Your task to perform on an android device: Search for logitech g502 on walmart.com, select the first entry, add it to the cart, then select checkout. Image 0: 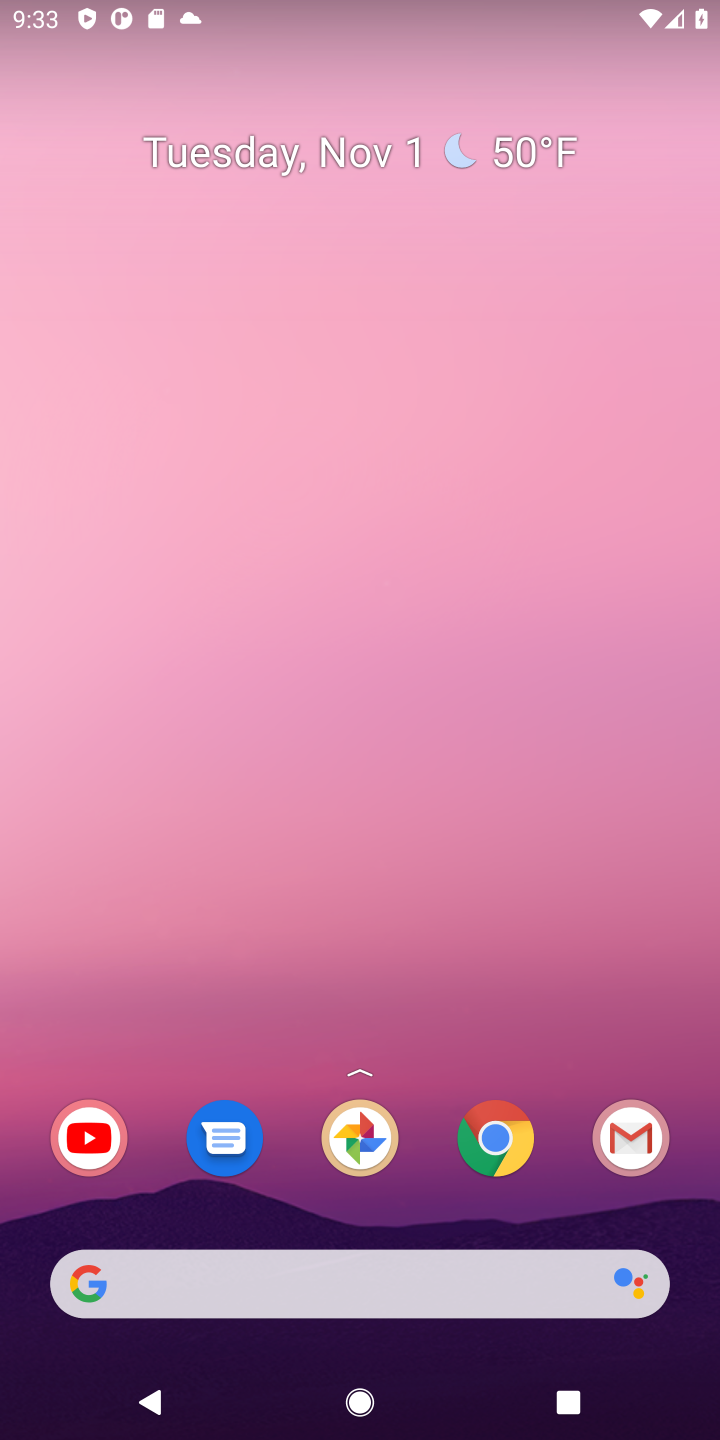
Step 0: click (498, 1138)
Your task to perform on an android device: Search for logitech g502 on walmart.com, select the first entry, add it to the cart, then select checkout. Image 1: 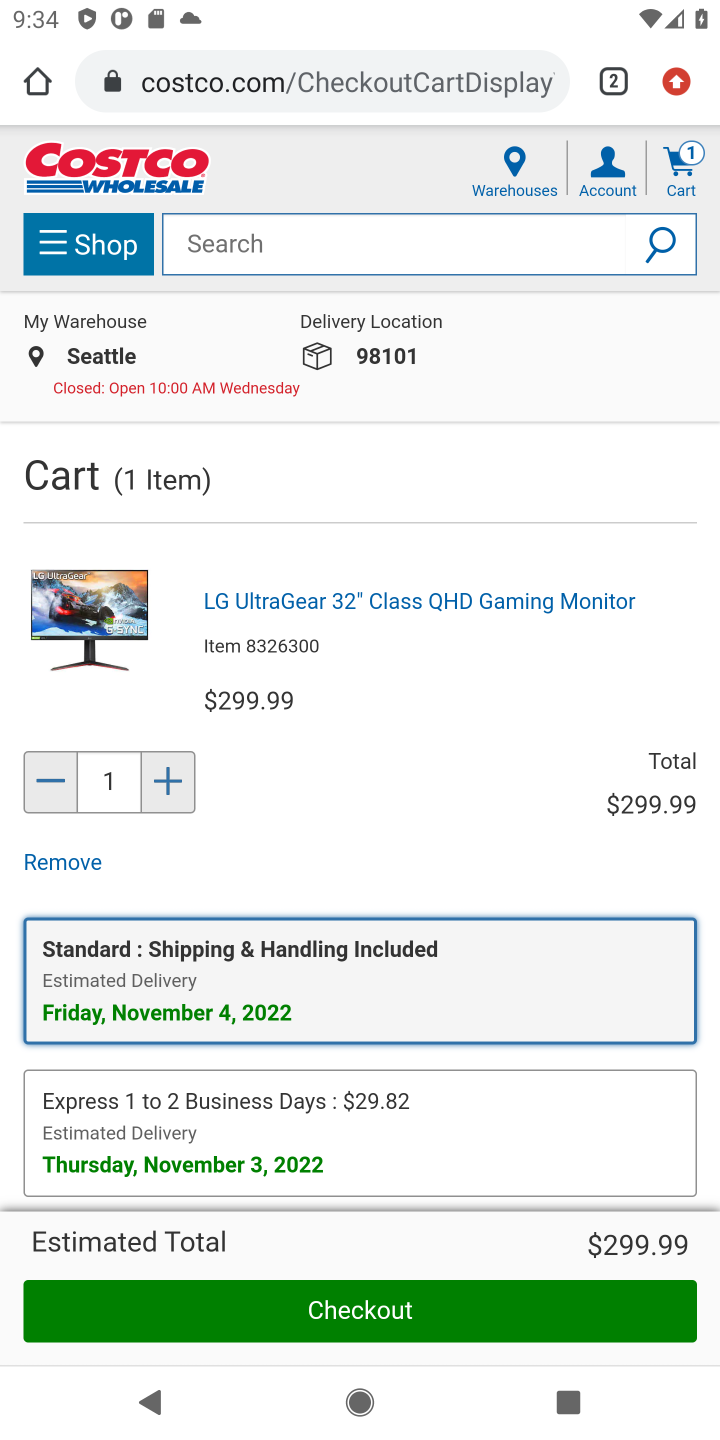
Step 1: click (403, 92)
Your task to perform on an android device: Search for logitech g502 on walmart.com, select the first entry, add it to the cart, then select checkout. Image 2: 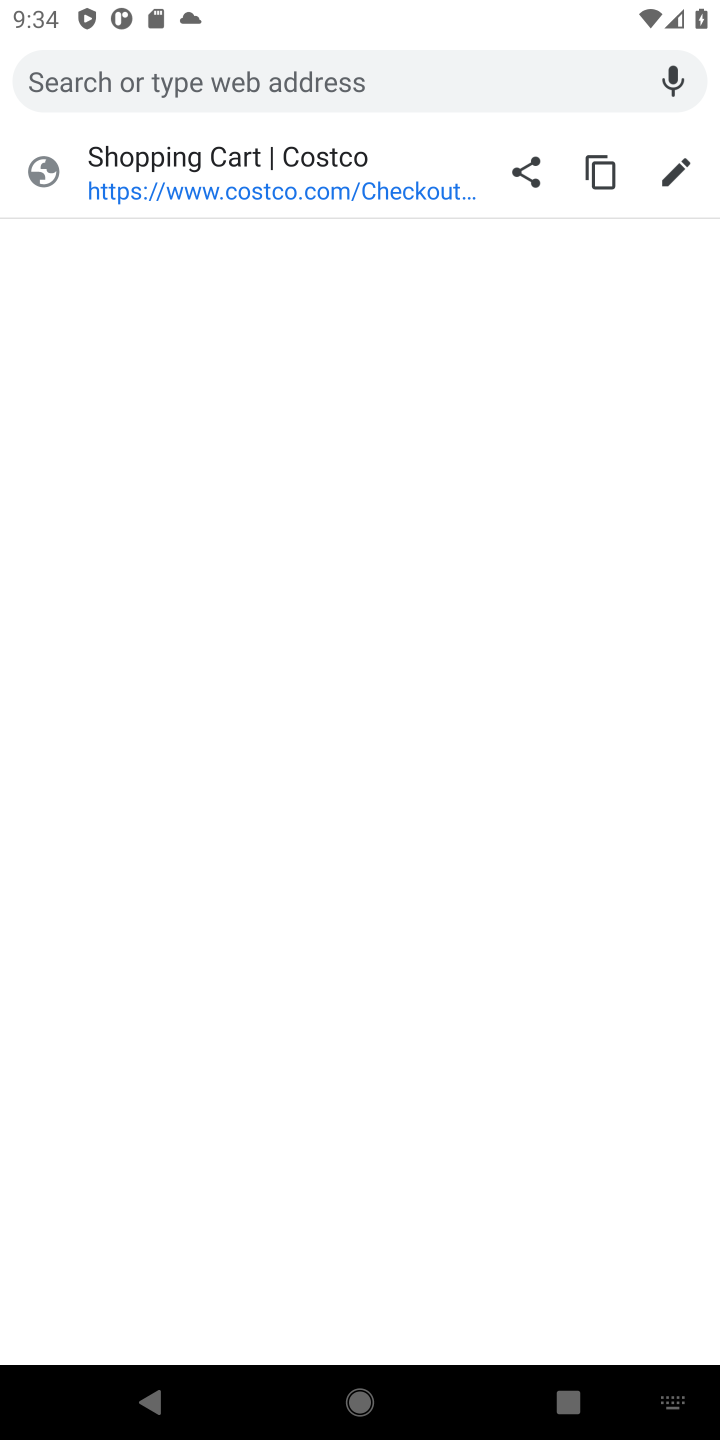
Step 2: type "walmart.com"
Your task to perform on an android device: Search for logitech g502 on walmart.com, select the first entry, add it to the cart, then select checkout. Image 3: 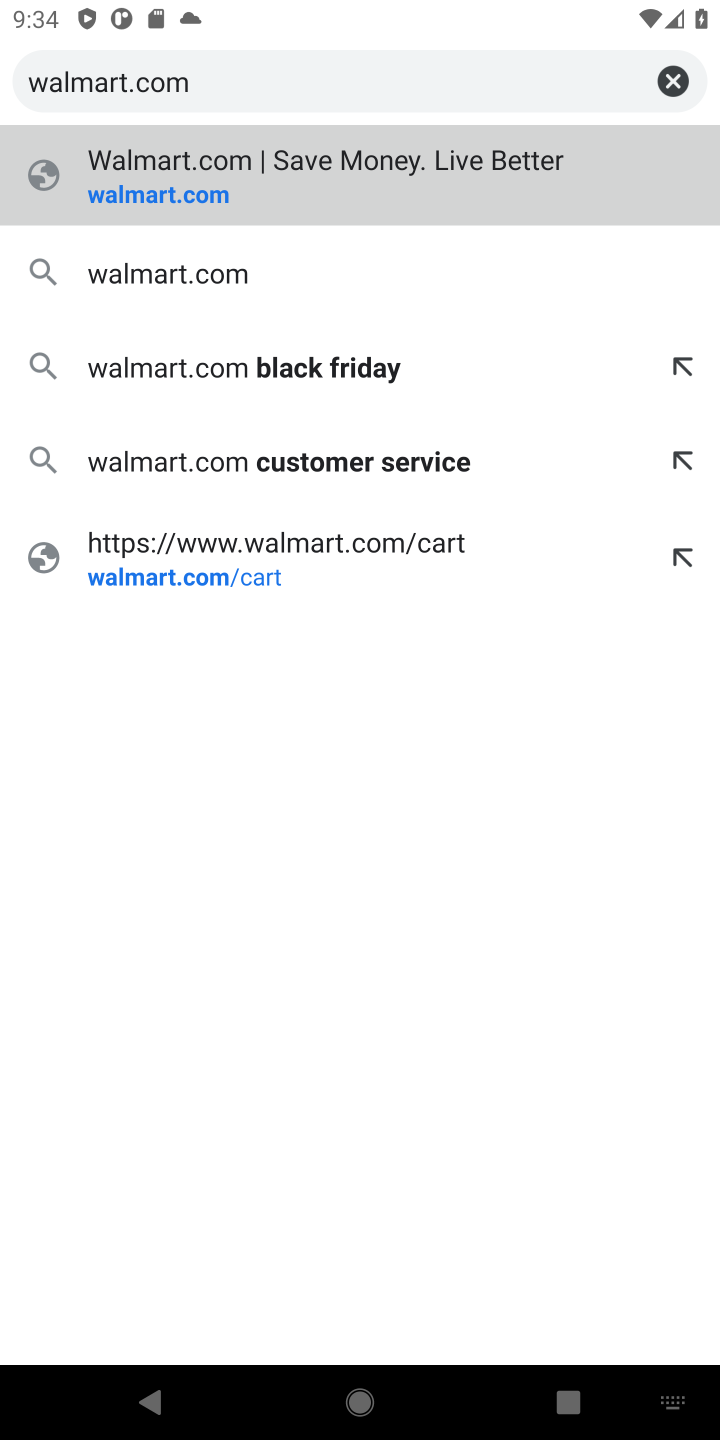
Step 3: click (218, 276)
Your task to perform on an android device: Search for logitech g502 on walmart.com, select the first entry, add it to the cart, then select checkout. Image 4: 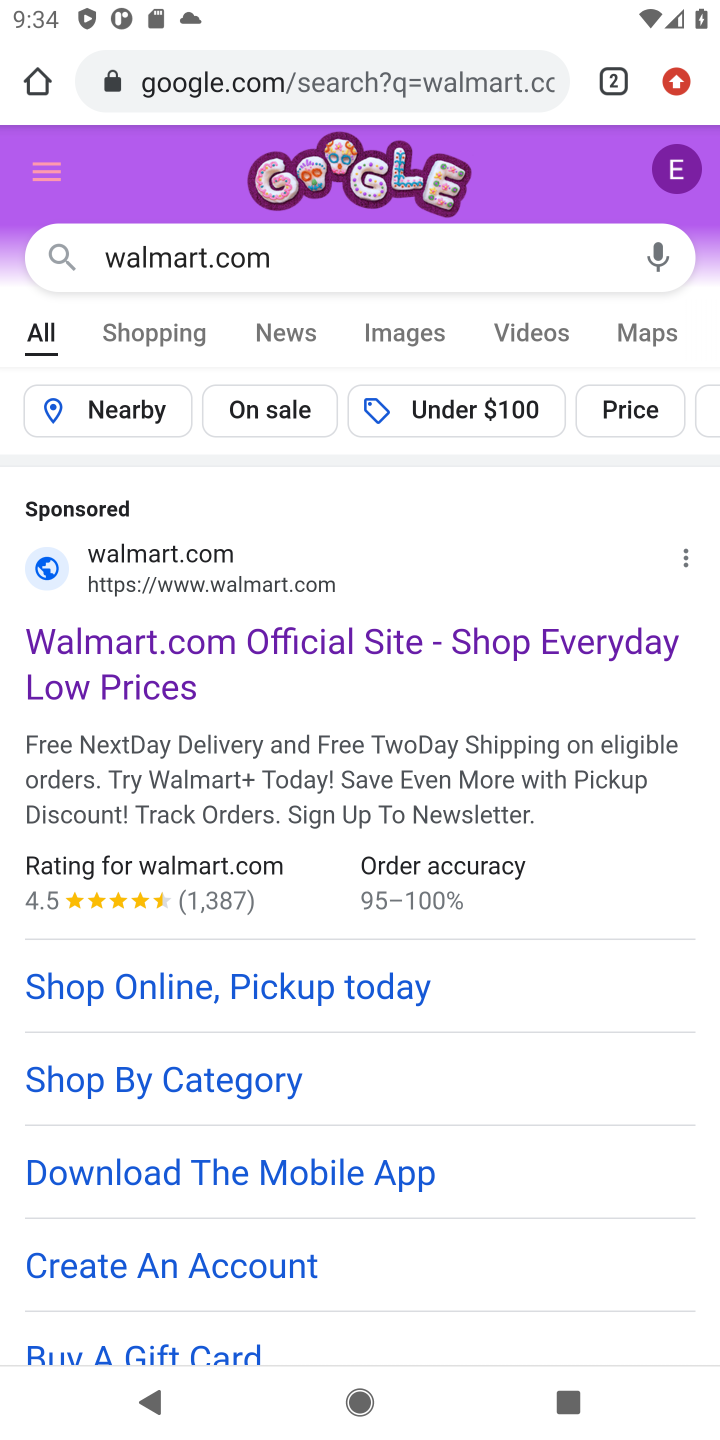
Step 4: drag from (317, 855) to (413, 221)
Your task to perform on an android device: Search for logitech g502 on walmart.com, select the first entry, add it to the cart, then select checkout. Image 5: 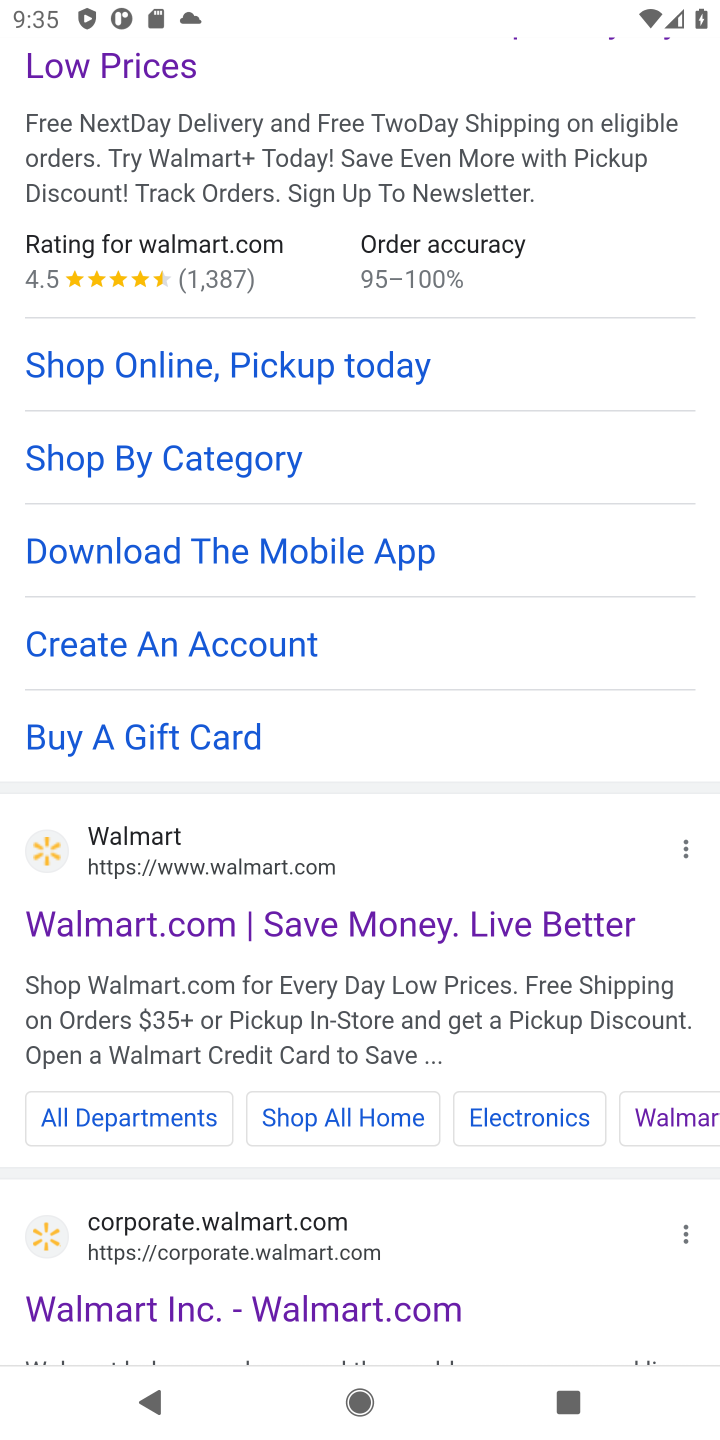
Step 5: click (241, 889)
Your task to perform on an android device: Search for logitech g502 on walmart.com, select the first entry, add it to the cart, then select checkout. Image 6: 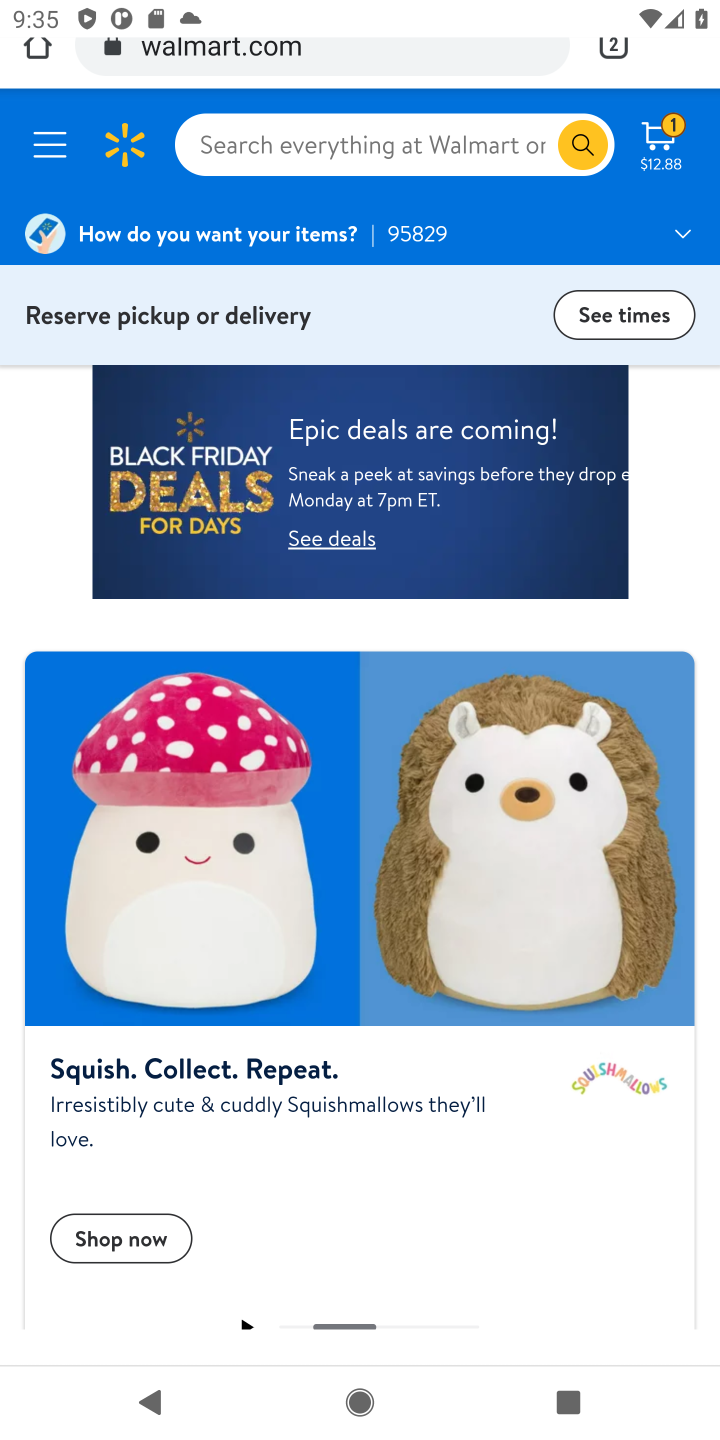
Step 6: click (369, 149)
Your task to perform on an android device: Search for logitech g502 on walmart.com, select the first entry, add it to the cart, then select checkout. Image 7: 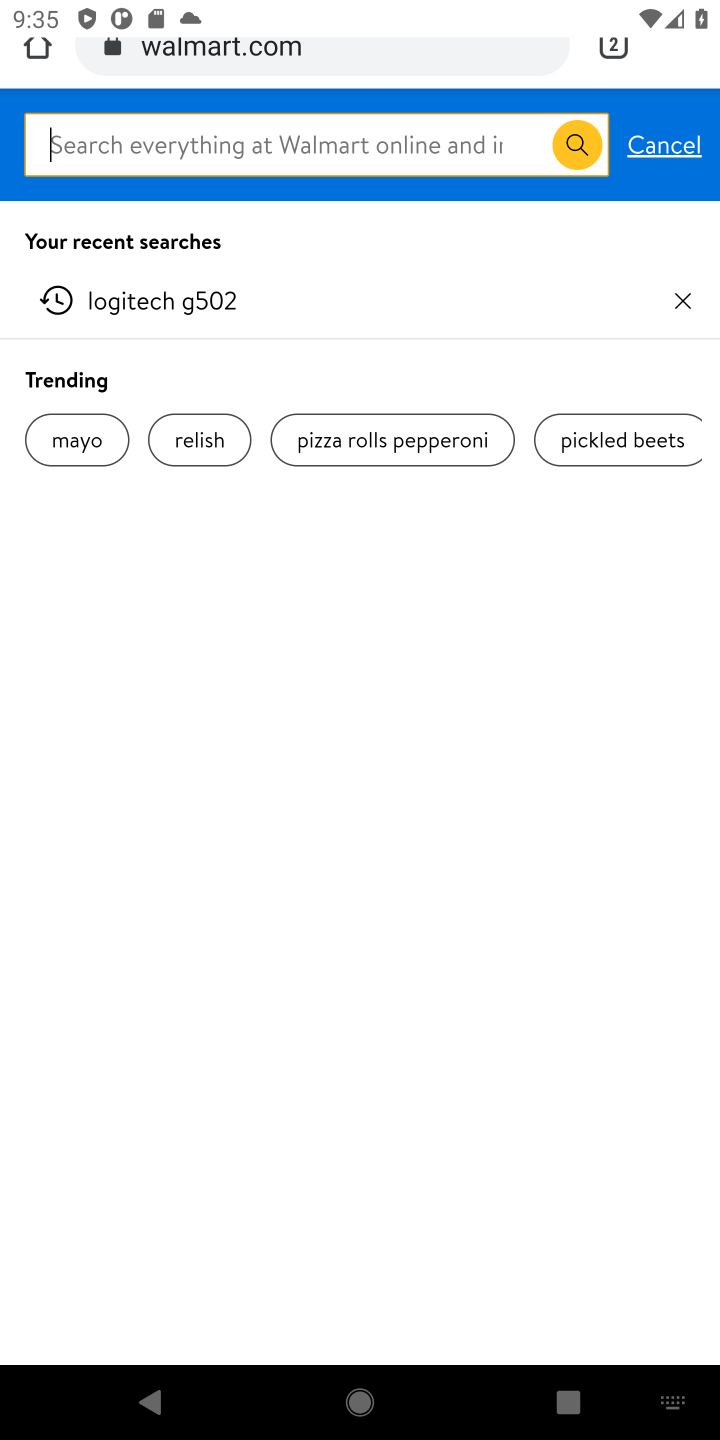
Step 7: type "logitech g502"
Your task to perform on an android device: Search for logitech g502 on walmart.com, select the first entry, add it to the cart, then select checkout. Image 8: 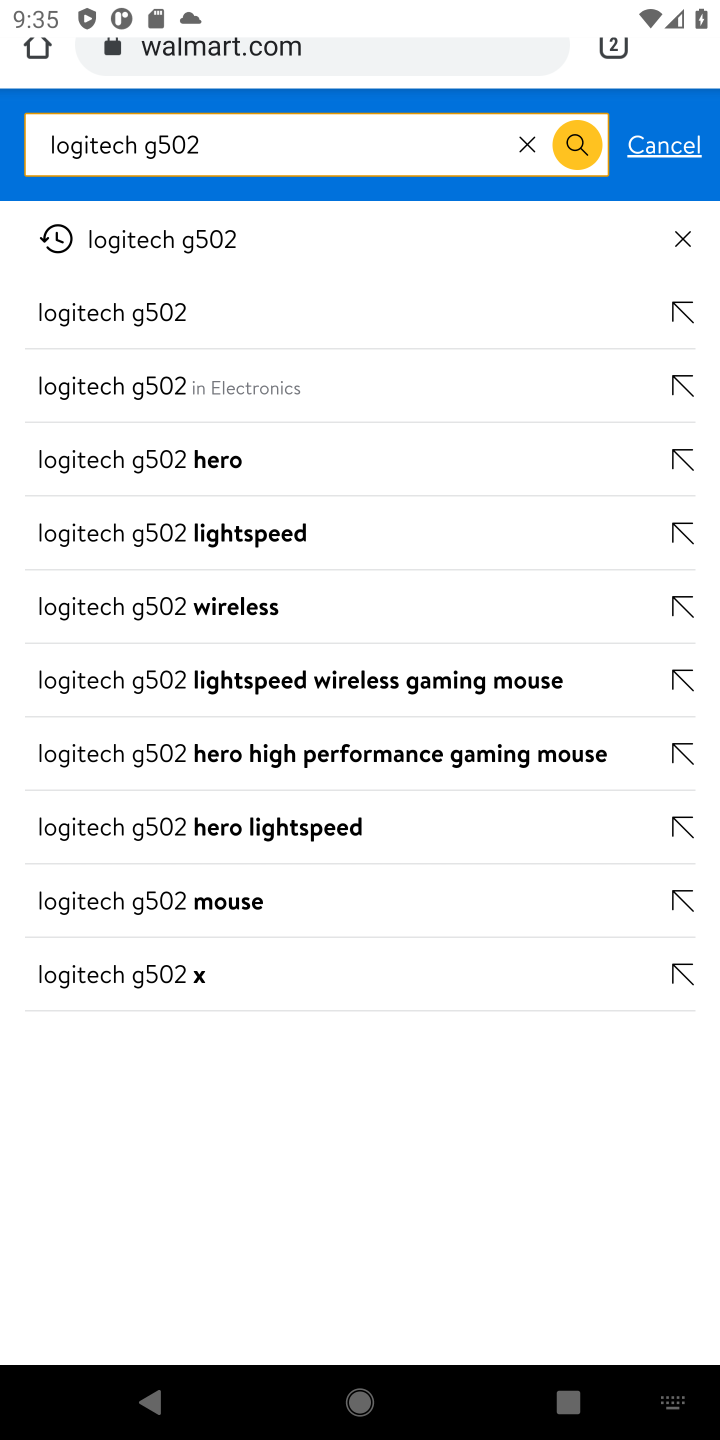
Step 8: click (121, 246)
Your task to perform on an android device: Search for logitech g502 on walmart.com, select the first entry, add it to the cart, then select checkout. Image 9: 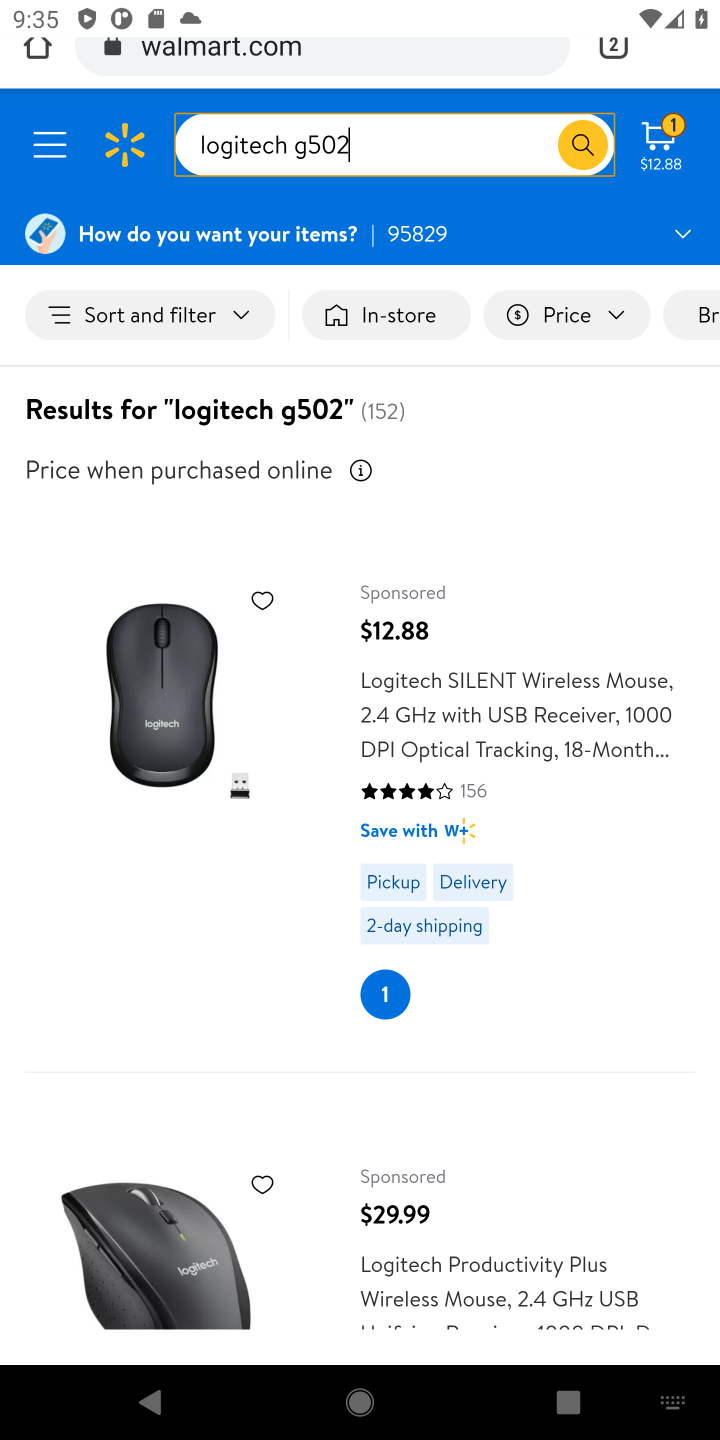
Step 9: click (439, 717)
Your task to perform on an android device: Search for logitech g502 on walmart.com, select the first entry, add it to the cart, then select checkout. Image 10: 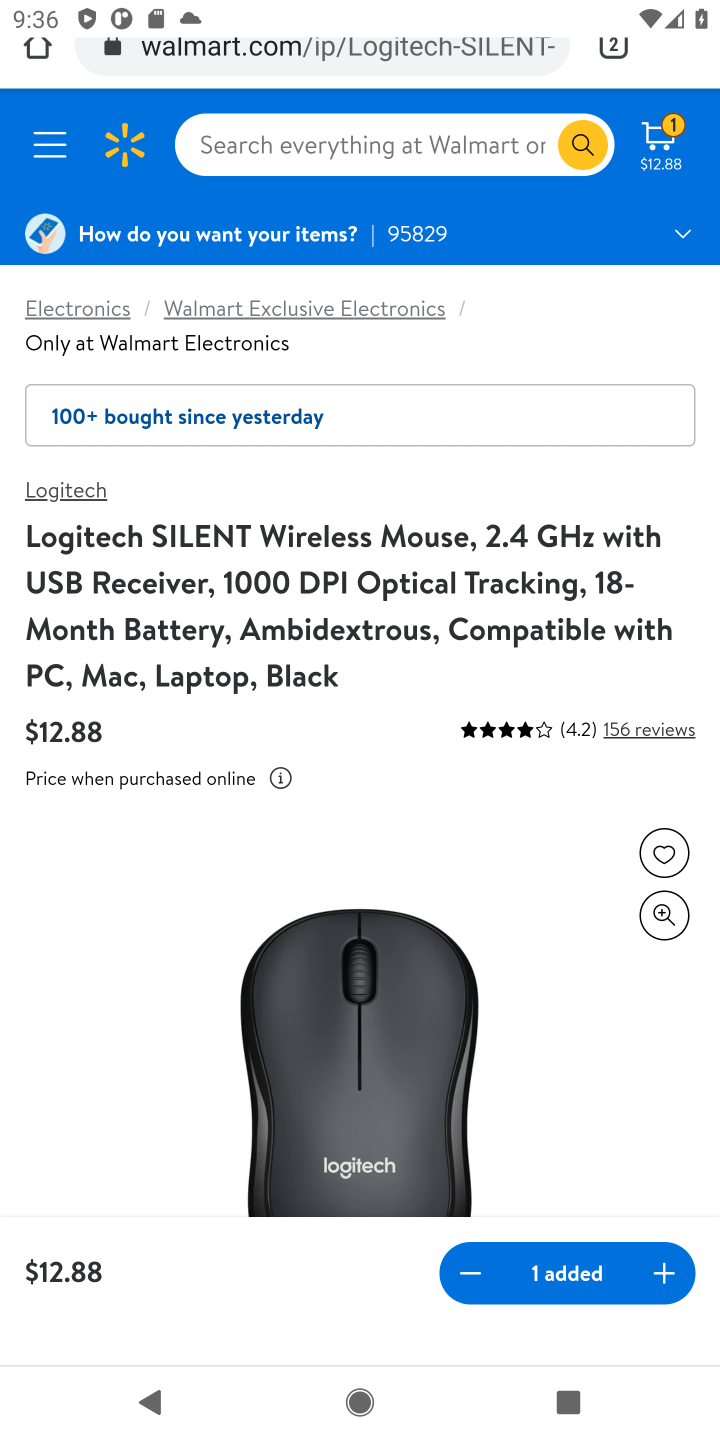
Step 10: click (664, 135)
Your task to perform on an android device: Search for logitech g502 on walmart.com, select the first entry, add it to the cart, then select checkout. Image 11: 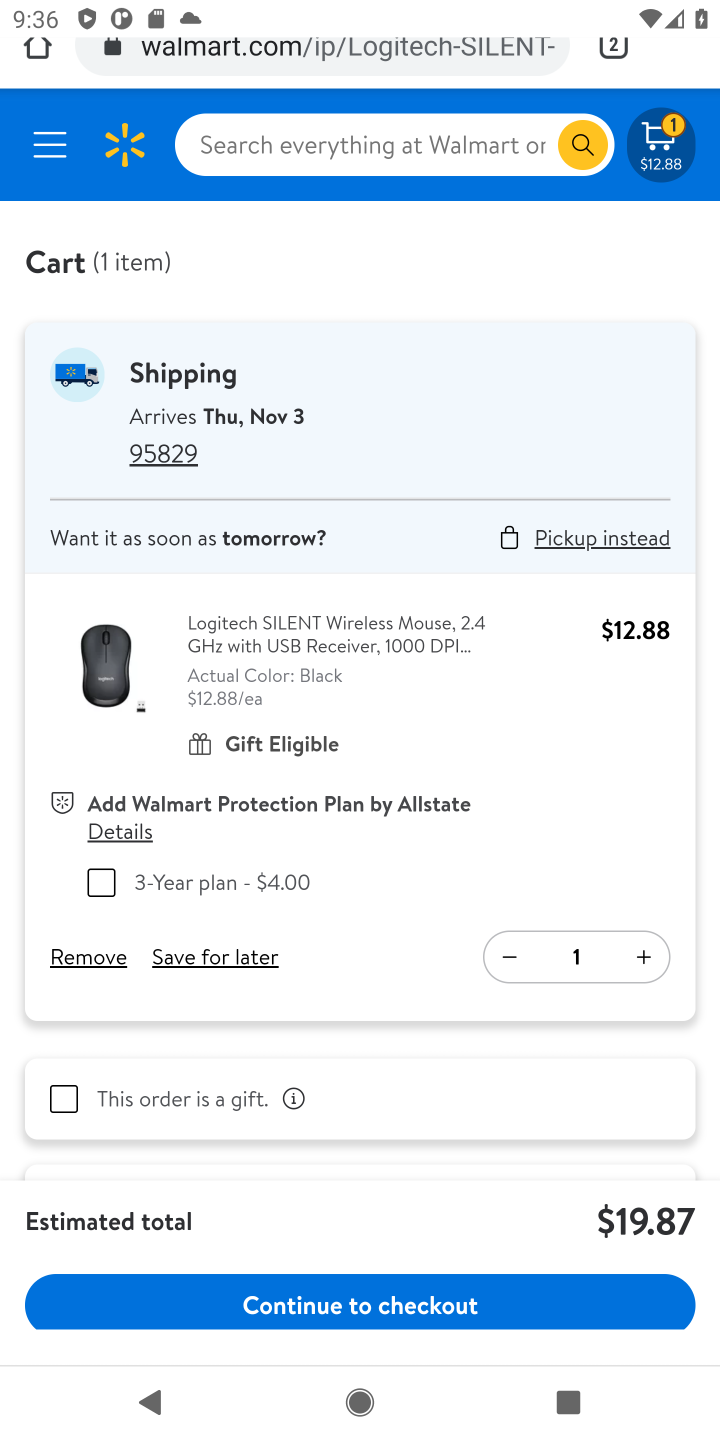
Step 11: drag from (391, 1207) to (410, 680)
Your task to perform on an android device: Search for logitech g502 on walmart.com, select the first entry, add it to the cart, then select checkout. Image 12: 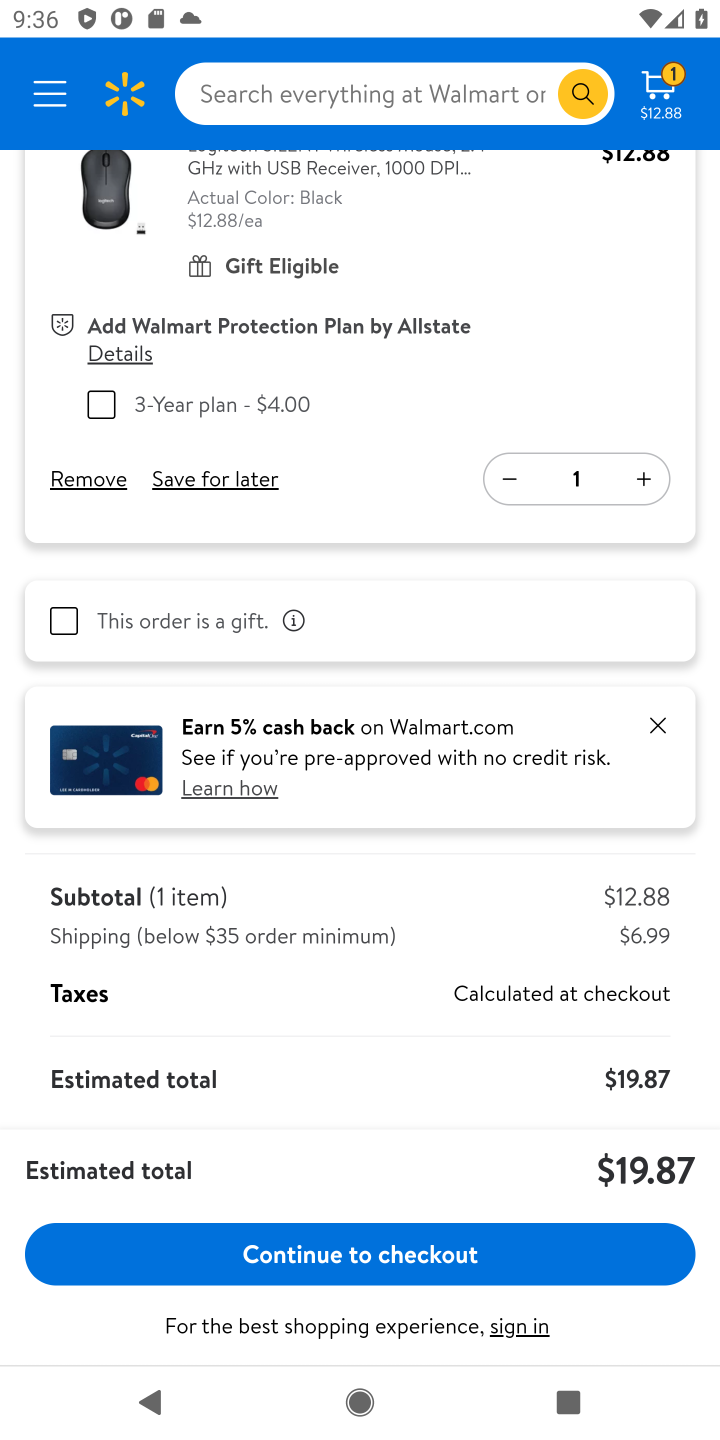
Step 12: click (320, 1267)
Your task to perform on an android device: Search for logitech g502 on walmart.com, select the first entry, add it to the cart, then select checkout. Image 13: 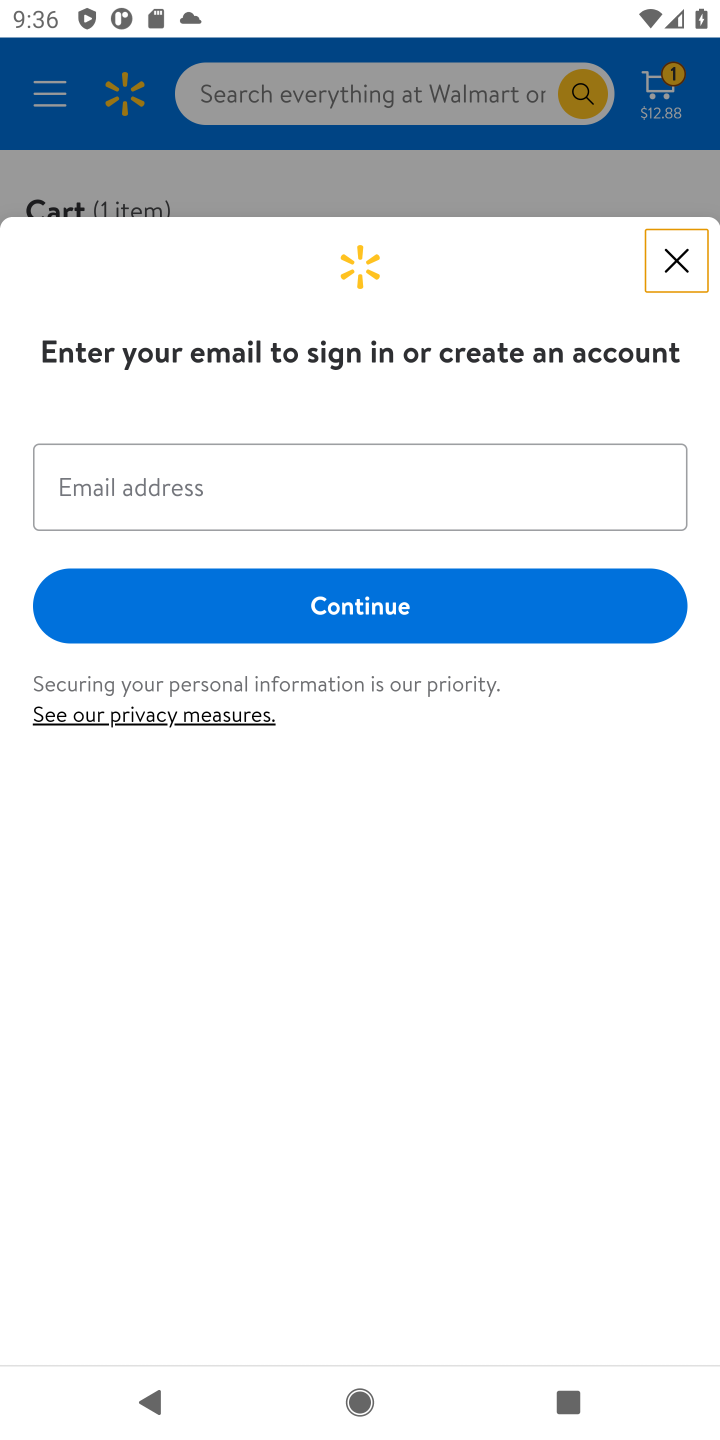
Step 13: task complete